Your task to perform on an android device: Clear the cart on costco. Search for lg ultragear on costco, select the first entry, add it to the cart, then select checkout. Image 0: 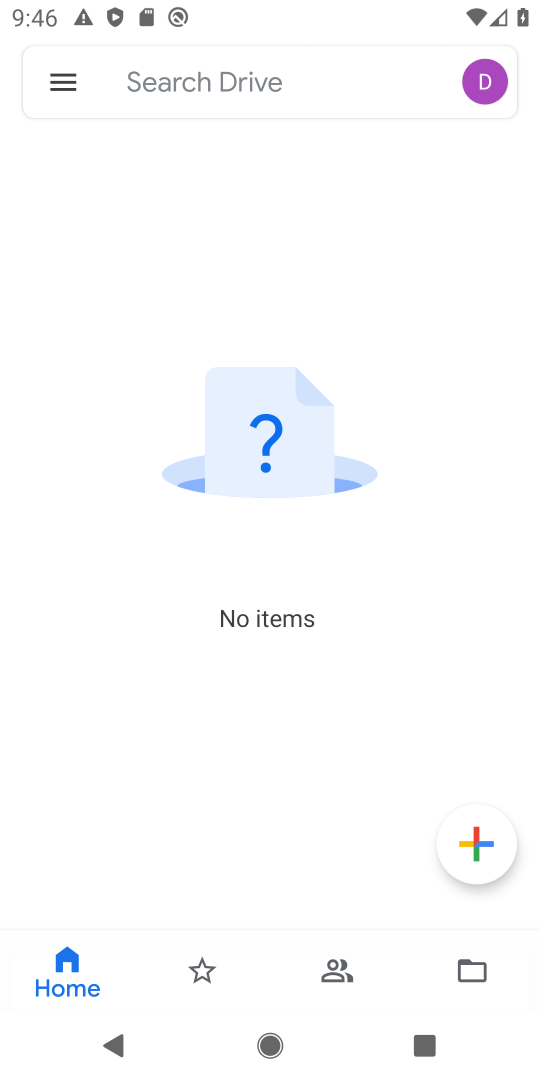
Step 0: press home button
Your task to perform on an android device: Clear the cart on costco. Search for lg ultragear on costco, select the first entry, add it to the cart, then select checkout. Image 1: 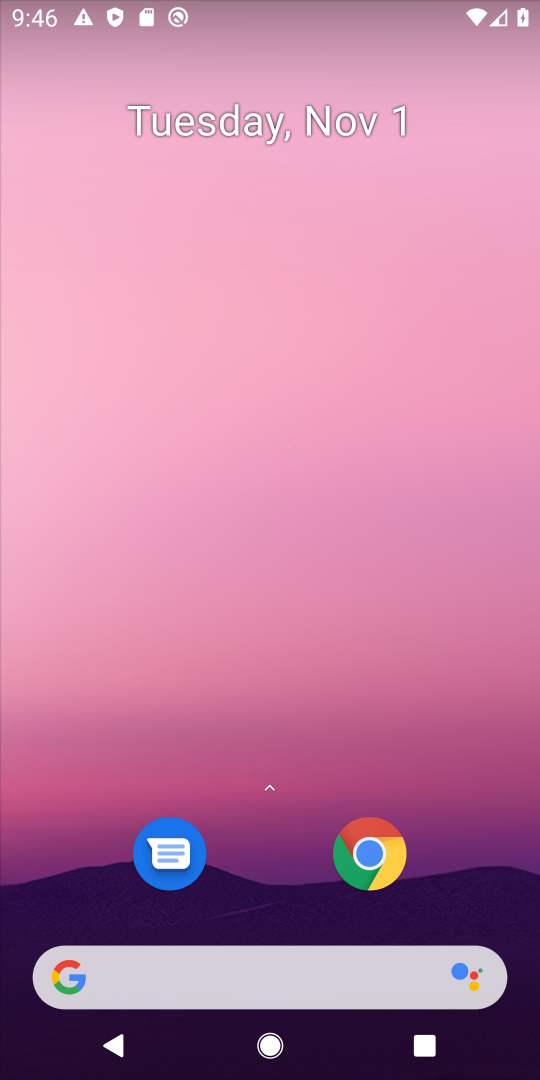
Step 1: click (277, 963)
Your task to perform on an android device: Clear the cart on costco. Search for lg ultragear on costco, select the first entry, add it to the cart, then select checkout. Image 2: 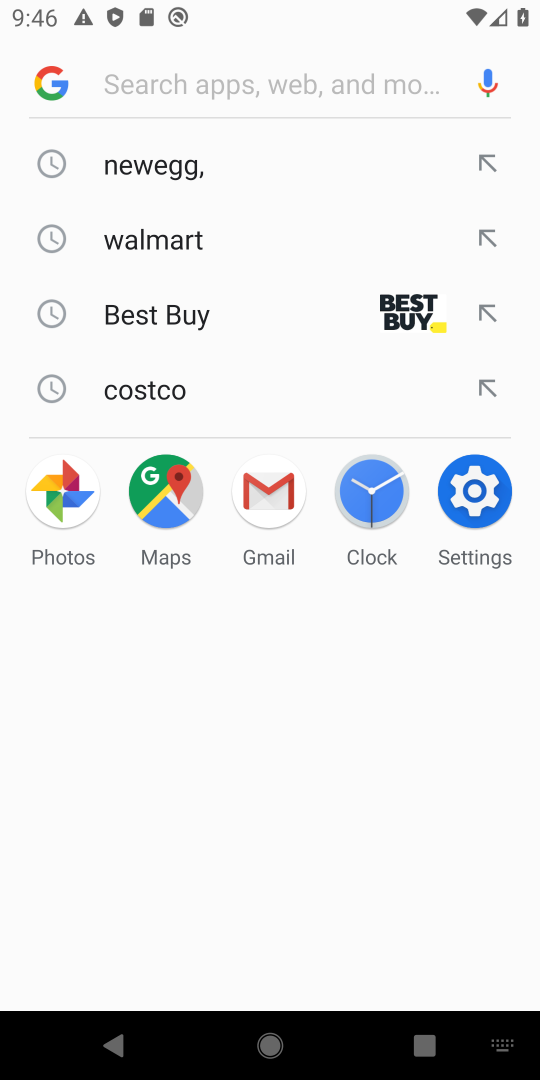
Step 2: click (143, 385)
Your task to perform on an android device: Clear the cart on costco. Search for lg ultragear on costco, select the first entry, add it to the cart, then select checkout. Image 3: 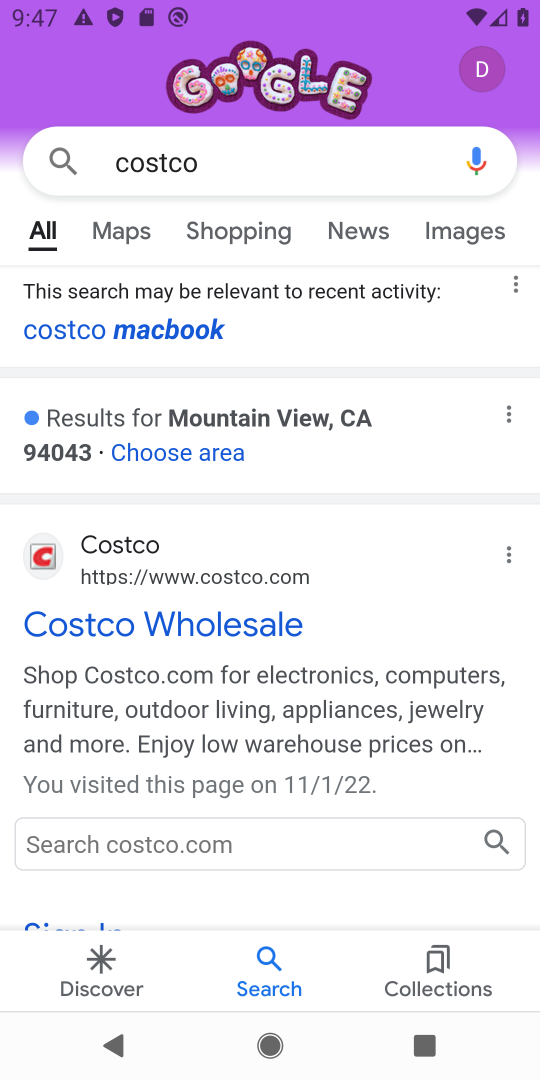
Step 3: click (159, 616)
Your task to perform on an android device: Clear the cart on costco. Search for lg ultragear on costco, select the first entry, add it to the cart, then select checkout. Image 4: 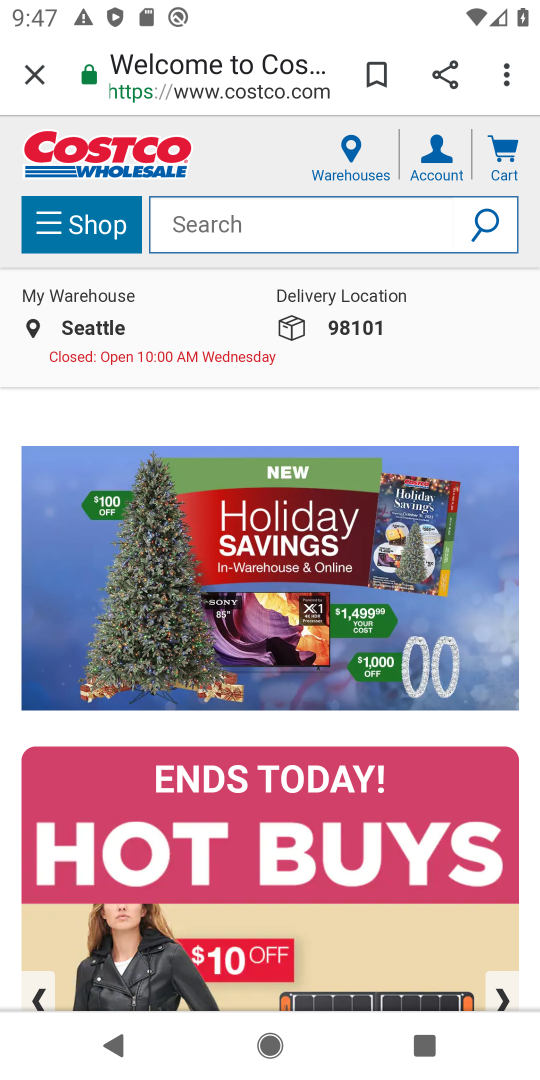
Step 4: click (219, 238)
Your task to perform on an android device: Clear the cart on costco. Search for lg ultragear on costco, select the first entry, add it to the cart, then select checkout. Image 5: 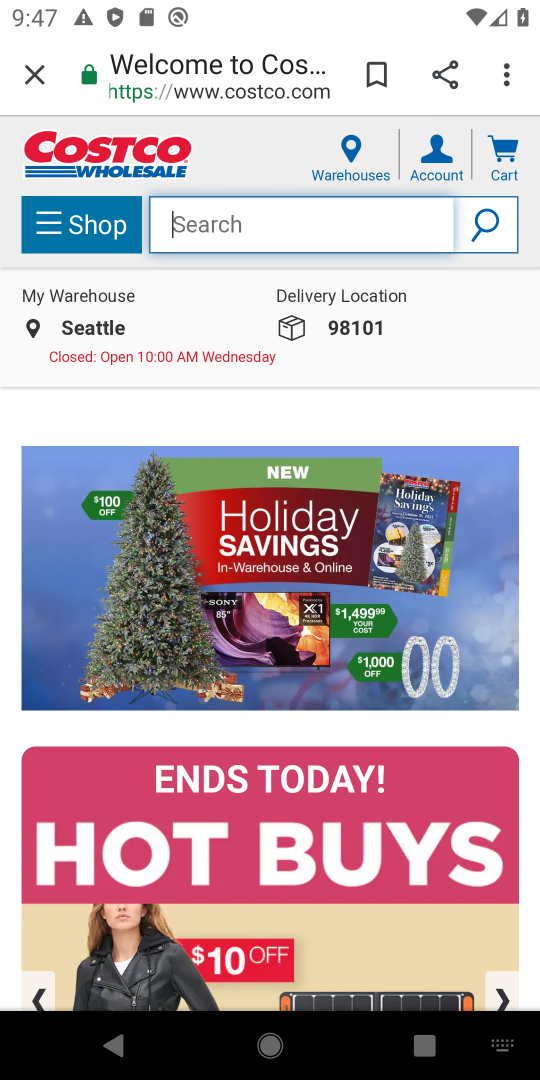
Step 5: type "ultergear"
Your task to perform on an android device: Clear the cart on costco. Search for lg ultragear on costco, select the first entry, add it to the cart, then select checkout. Image 6: 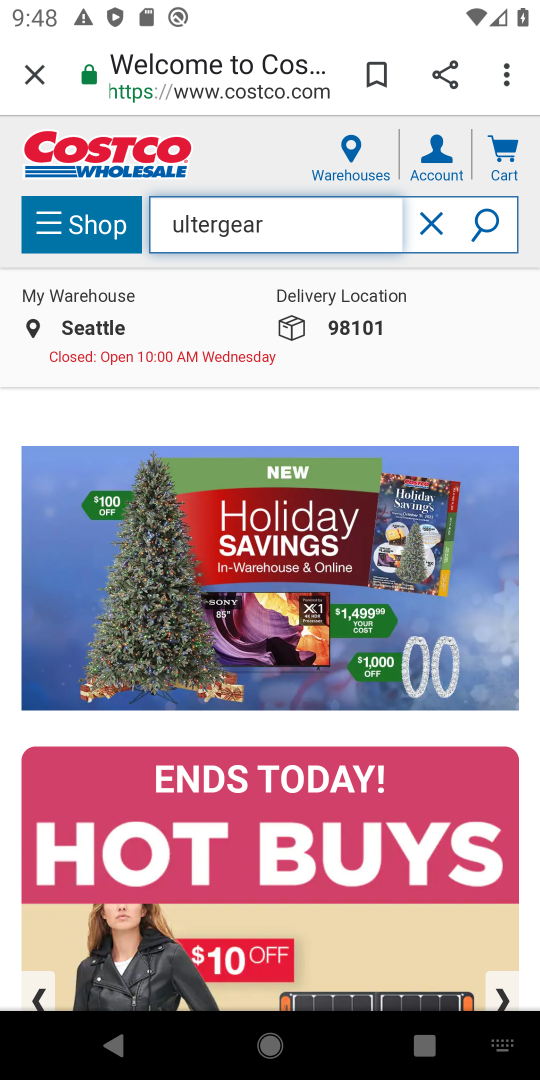
Step 6: click (488, 243)
Your task to perform on an android device: Clear the cart on costco. Search for lg ultragear on costco, select the first entry, add it to the cart, then select checkout. Image 7: 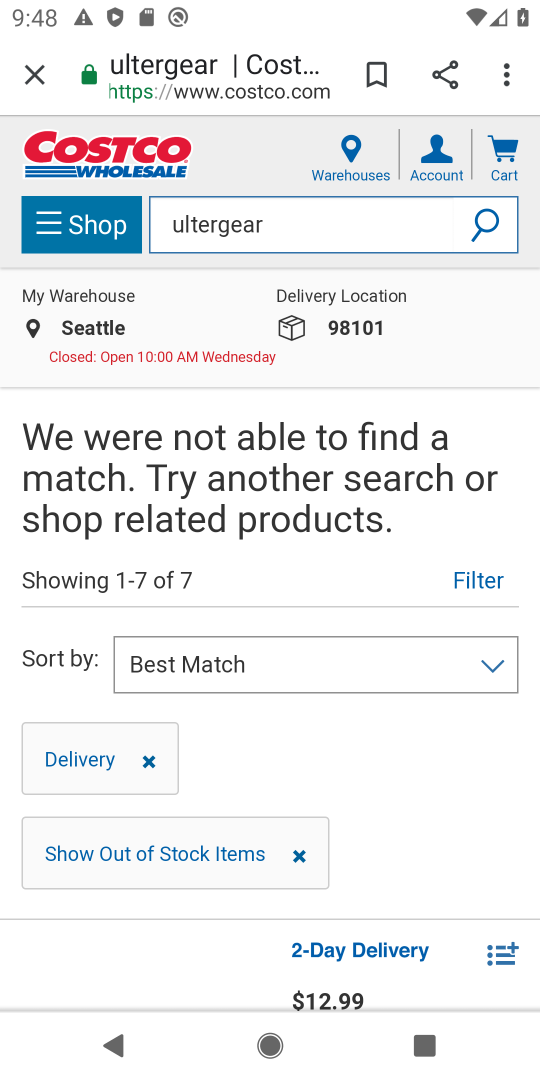
Step 7: task complete